Your task to perform on an android device: change timer sound Image 0: 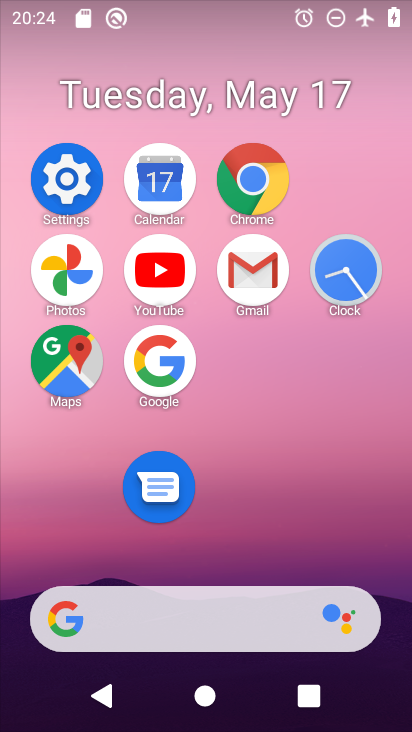
Step 0: click (364, 271)
Your task to perform on an android device: change timer sound Image 1: 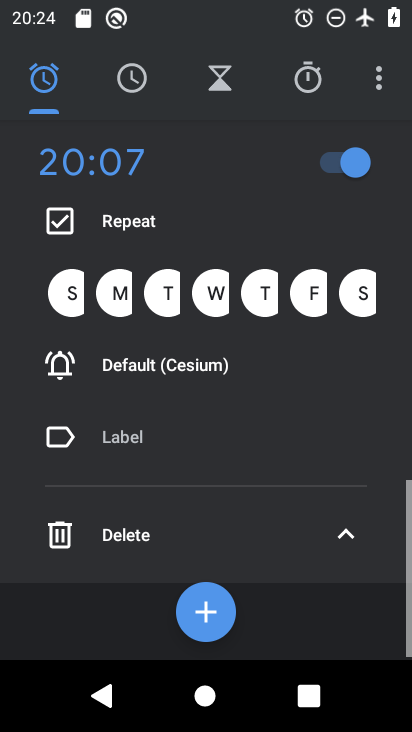
Step 1: click (379, 96)
Your task to perform on an android device: change timer sound Image 2: 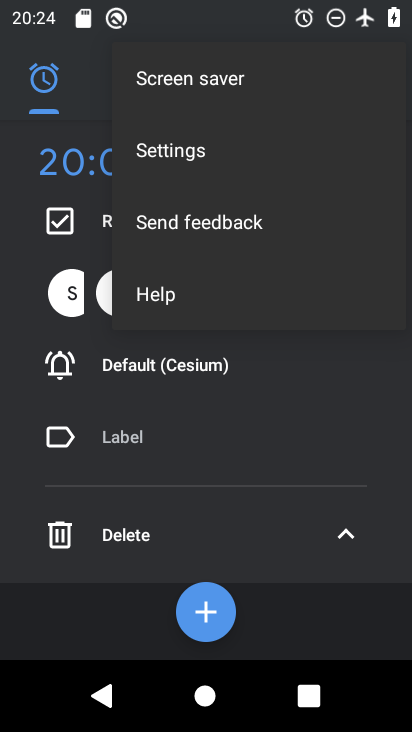
Step 2: click (188, 152)
Your task to perform on an android device: change timer sound Image 3: 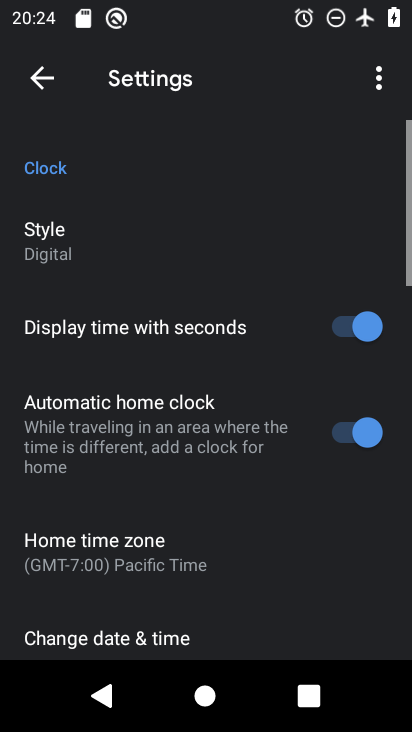
Step 3: drag from (190, 518) to (171, 185)
Your task to perform on an android device: change timer sound Image 4: 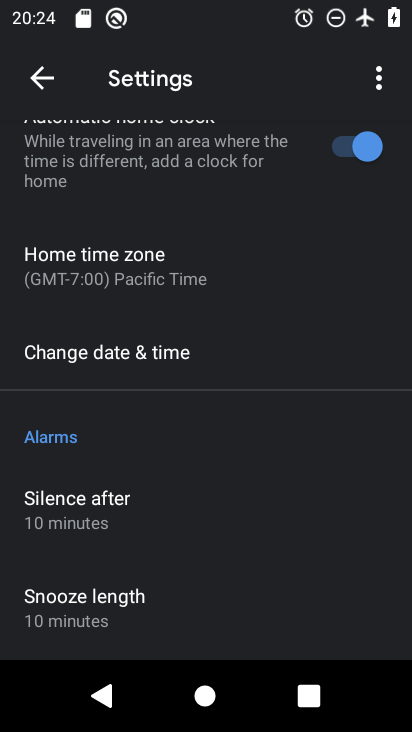
Step 4: drag from (188, 522) to (214, 180)
Your task to perform on an android device: change timer sound Image 5: 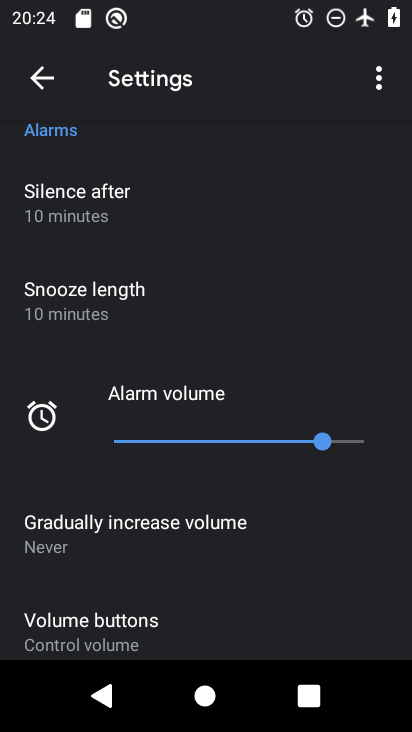
Step 5: drag from (191, 545) to (212, 236)
Your task to perform on an android device: change timer sound Image 6: 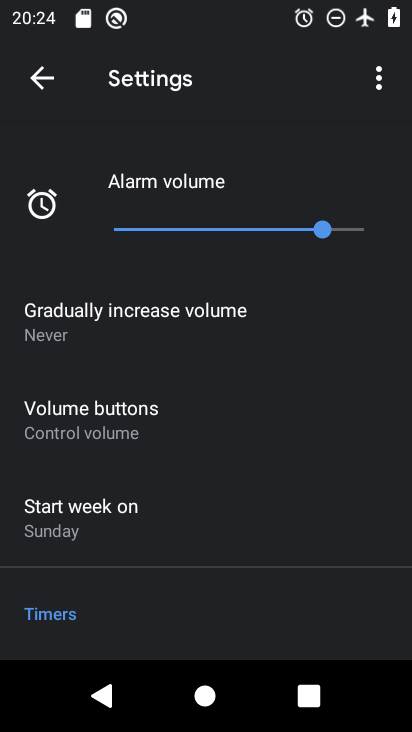
Step 6: drag from (235, 524) to (221, 186)
Your task to perform on an android device: change timer sound Image 7: 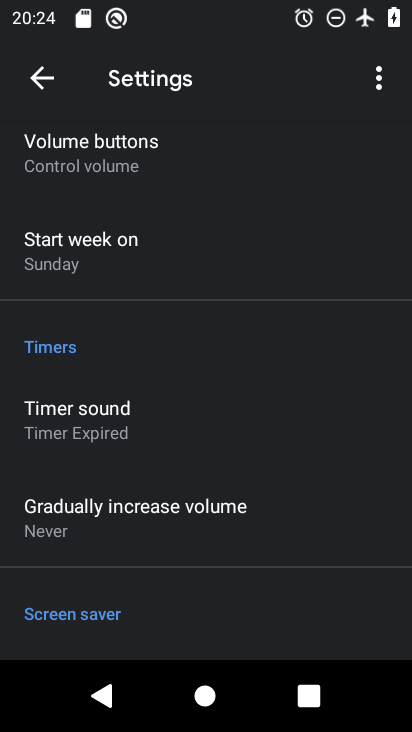
Step 7: click (153, 427)
Your task to perform on an android device: change timer sound Image 8: 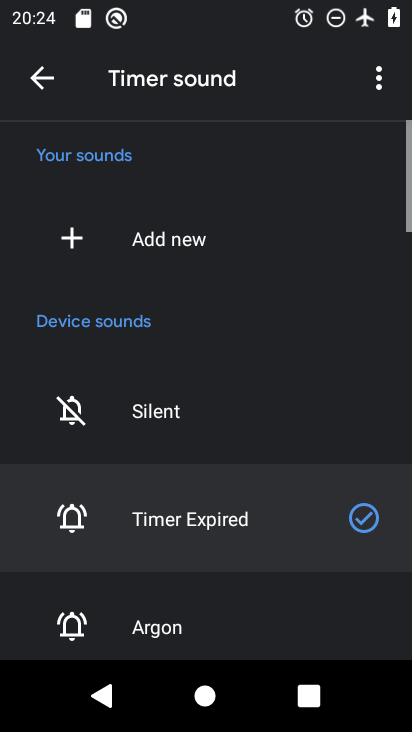
Step 8: click (184, 616)
Your task to perform on an android device: change timer sound Image 9: 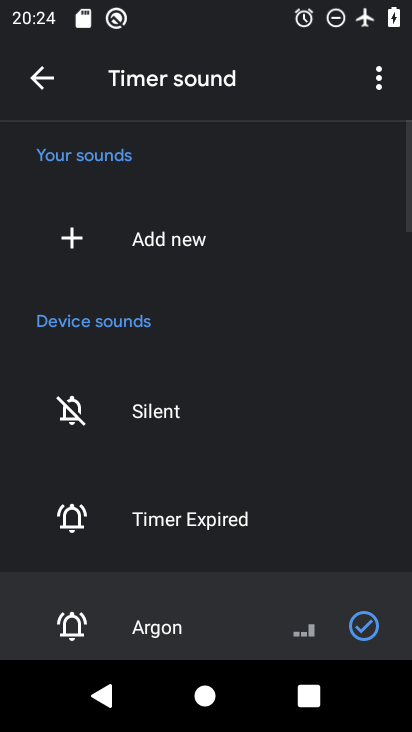
Step 9: task complete